Your task to perform on an android device: change the clock display to show seconds Image 0: 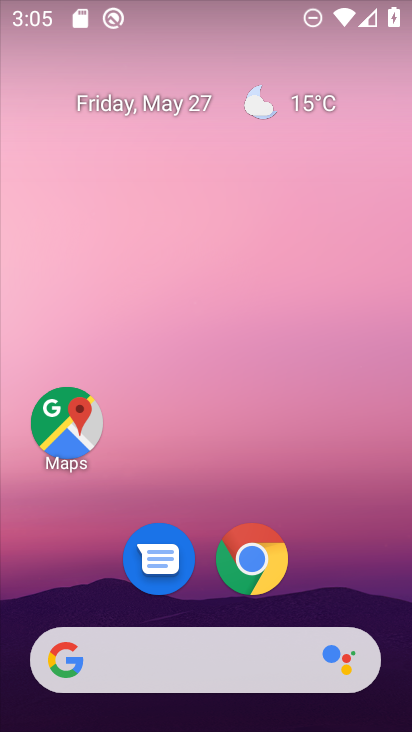
Step 0: drag from (261, 655) to (251, 10)
Your task to perform on an android device: change the clock display to show seconds Image 1: 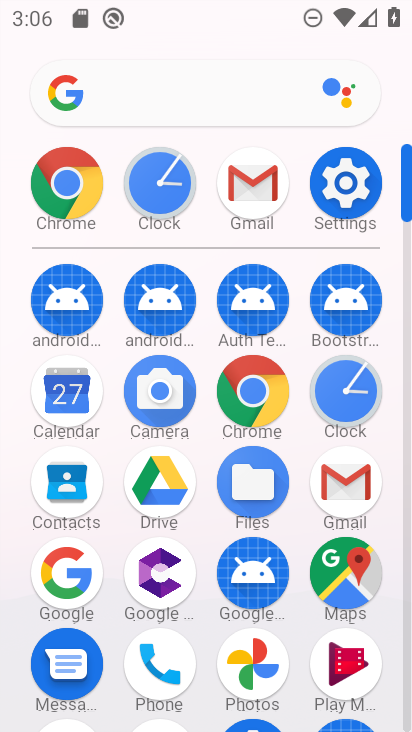
Step 1: click (353, 395)
Your task to perform on an android device: change the clock display to show seconds Image 2: 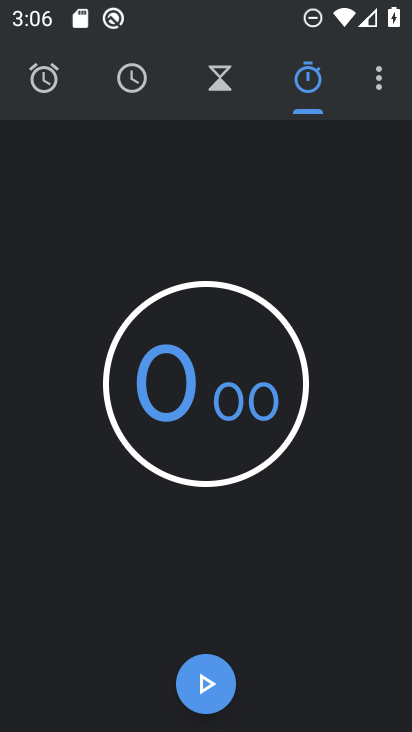
Step 2: click (383, 82)
Your task to perform on an android device: change the clock display to show seconds Image 3: 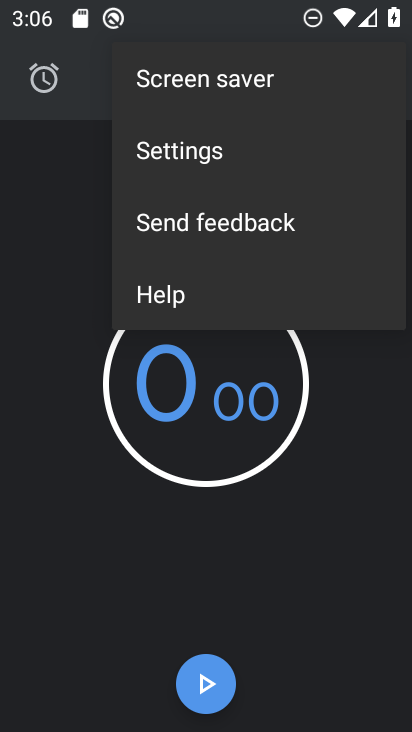
Step 3: click (247, 164)
Your task to perform on an android device: change the clock display to show seconds Image 4: 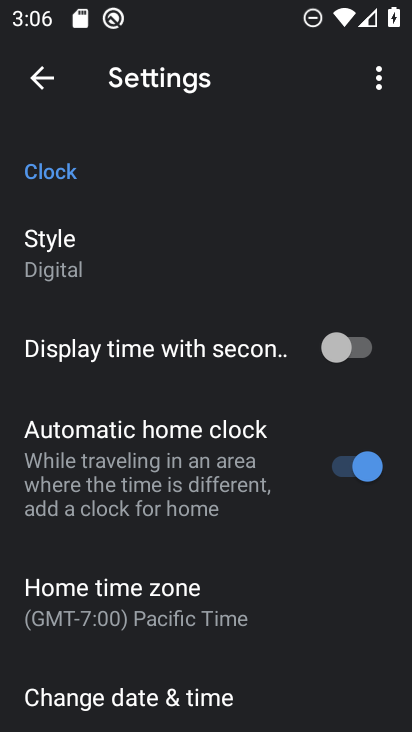
Step 4: click (358, 348)
Your task to perform on an android device: change the clock display to show seconds Image 5: 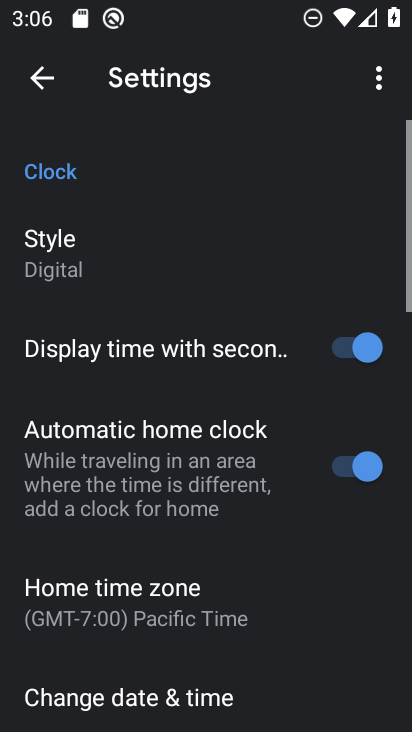
Step 5: task complete